Your task to perform on an android device: create a new album in the google photos Image 0: 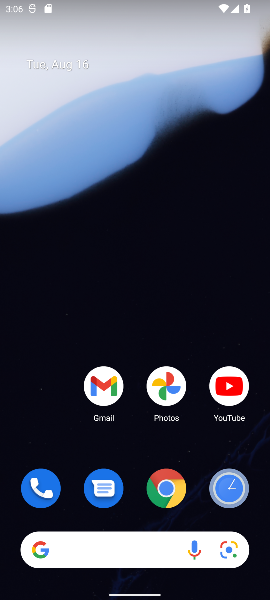
Step 0: click (166, 385)
Your task to perform on an android device: create a new album in the google photos Image 1: 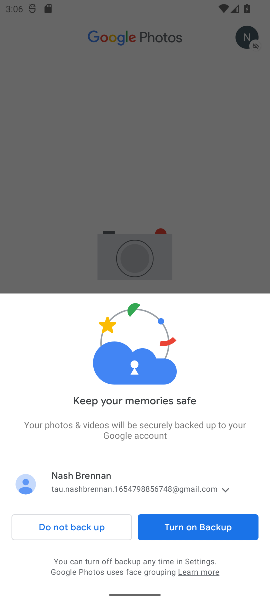
Step 1: task complete